Your task to perform on an android device: open wifi settings Image 0: 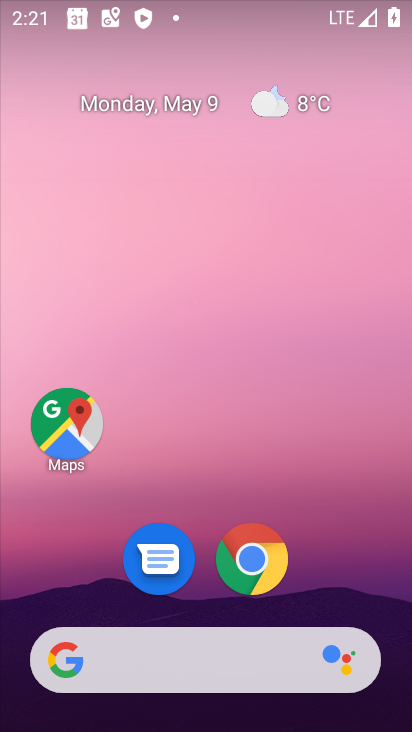
Step 0: drag from (327, 502) to (202, 70)
Your task to perform on an android device: open wifi settings Image 1: 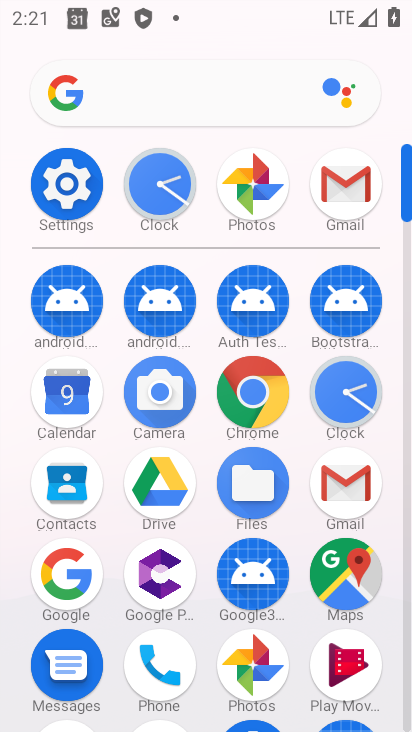
Step 1: click (63, 195)
Your task to perform on an android device: open wifi settings Image 2: 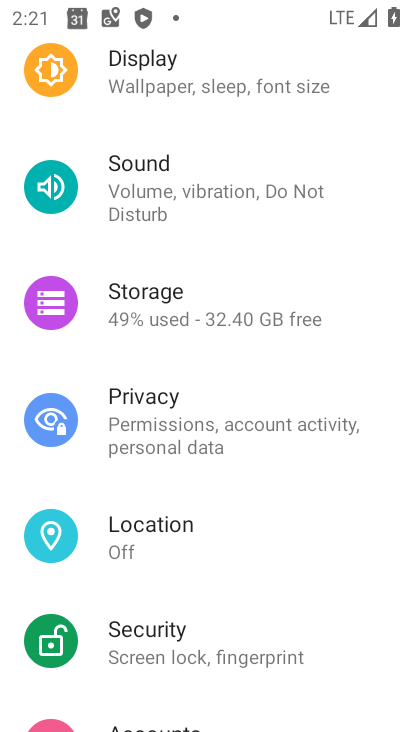
Step 2: drag from (226, 136) to (156, 660)
Your task to perform on an android device: open wifi settings Image 3: 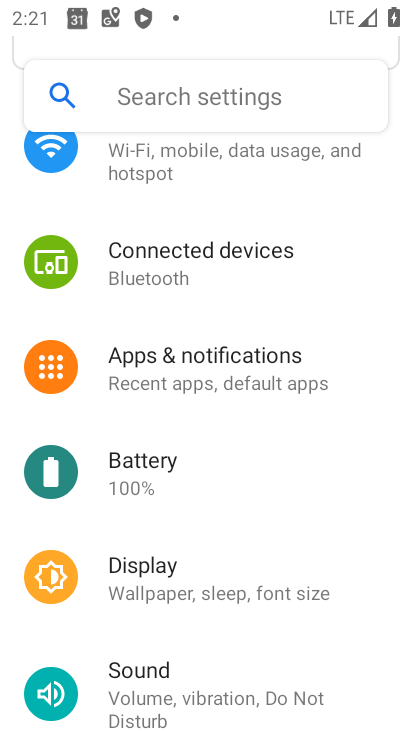
Step 3: drag from (152, 202) to (238, 675)
Your task to perform on an android device: open wifi settings Image 4: 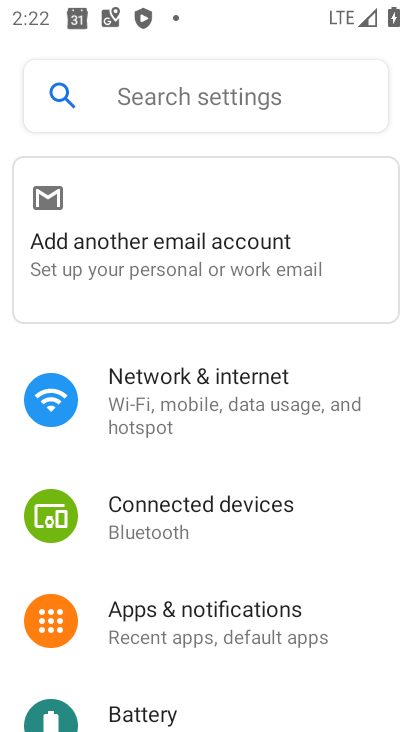
Step 4: click (150, 383)
Your task to perform on an android device: open wifi settings Image 5: 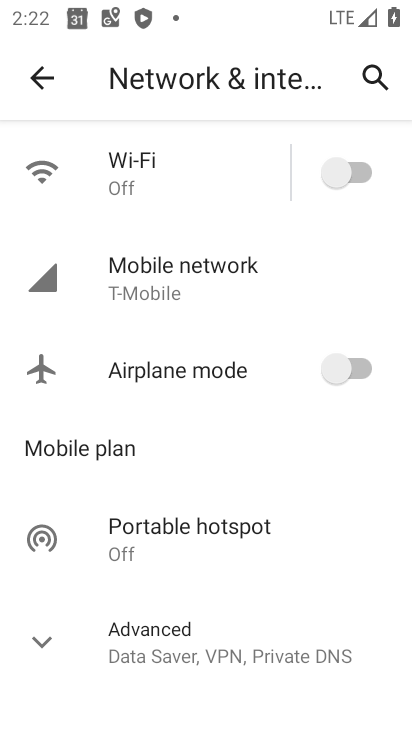
Step 5: click (193, 151)
Your task to perform on an android device: open wifi settings Image 6: 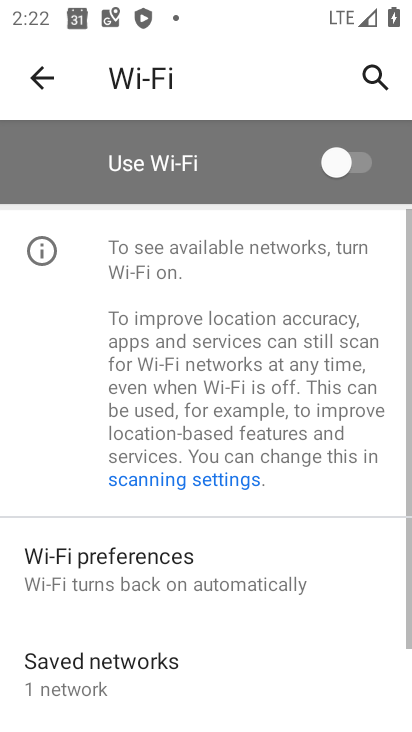
Step 6: task complete